Your task to perform on an android device: Open Google Chrome Image 0: 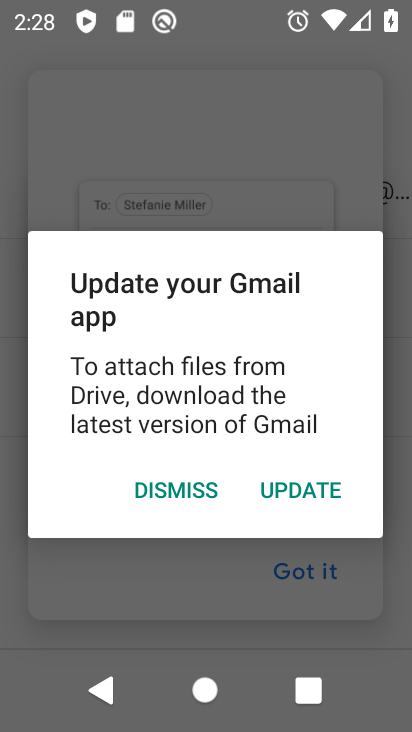
Step 0: press home button
Your task to perform on an android device: Open Google Chrome Image 1: 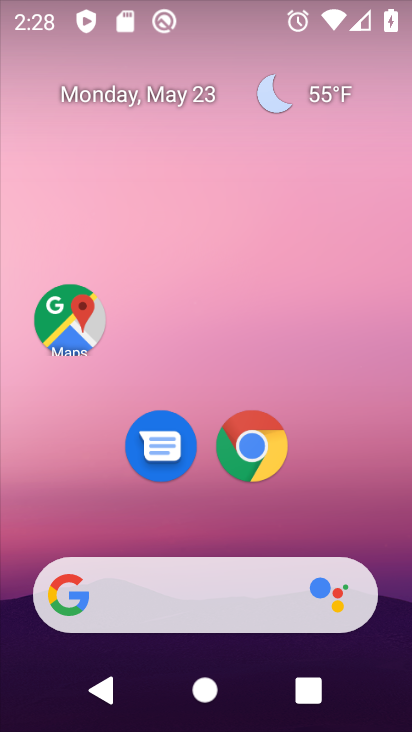
Step 1: click (257, 459)
Your task to perform on an android device: Open Google Chrome Image 2: 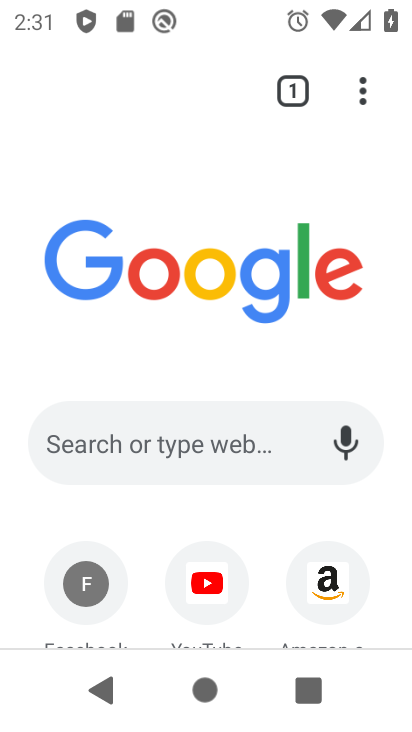
Step 2: task complete